Your task to perform on an android device: Search for vegetarian restaurants on Maps Image 0: 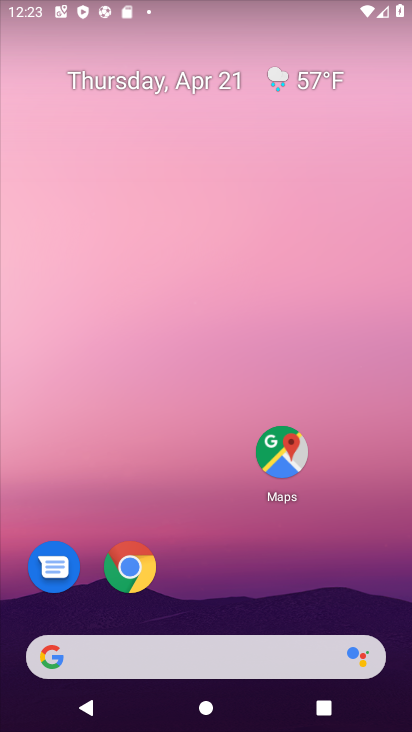
Step 0: click (299, 449)
Your task to perform on an android device: Search for vegetarian restaurants on Maps Image 1: 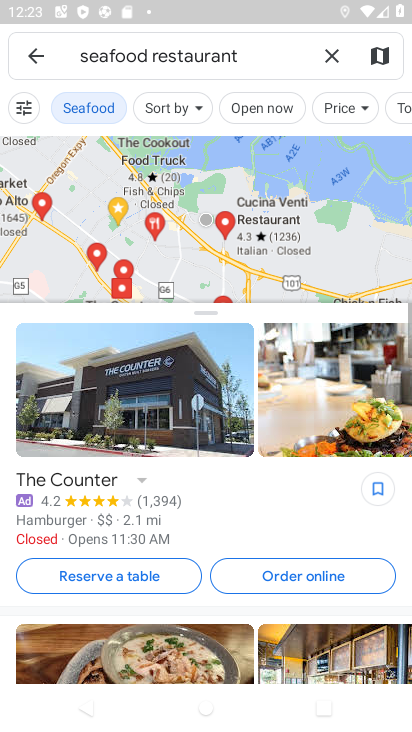
Step 1: click (327, 56)
Your task to perform on an android device: Search for vegetarian restaurants on Maps Image 2: 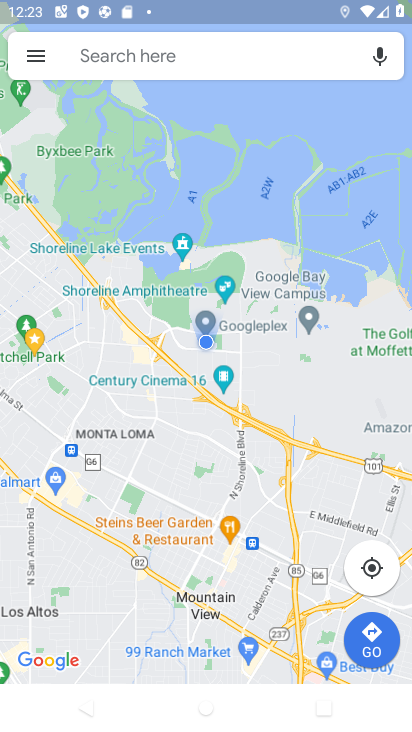
Step 2: click (193, 67)
Your task to perform on an android device: Search for vegetarian restaurants on Maps Image 3: 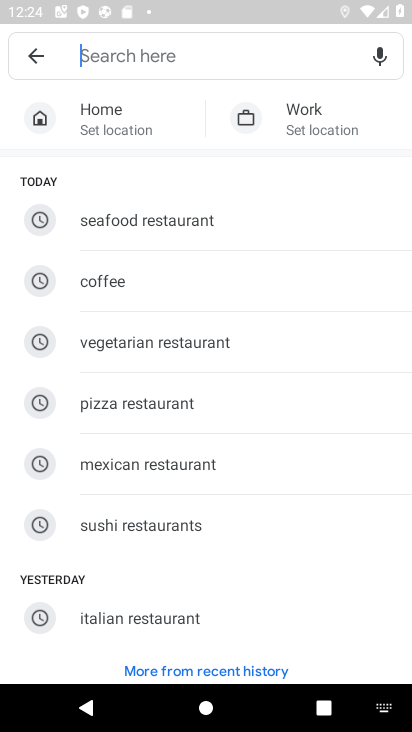
Step 3: type "vegetarian restaurants "
Your task to perform on an android device: Search for vegetarian restaurants on Maps Image 4: 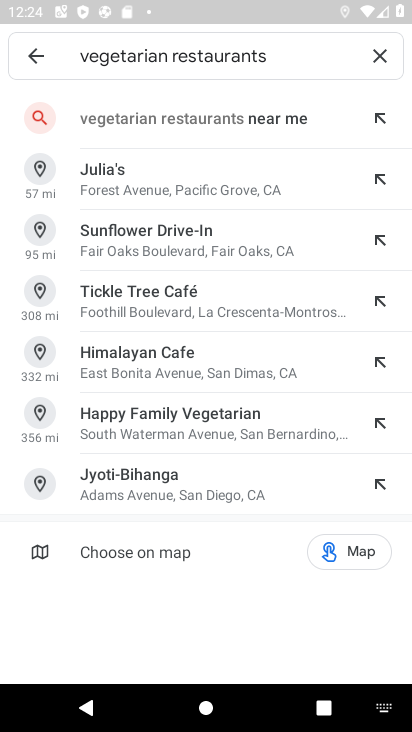
Step 4: click (260, 121)
Your task to perform on an android device: Search for vegetarian restaurants on Maps Image 5: 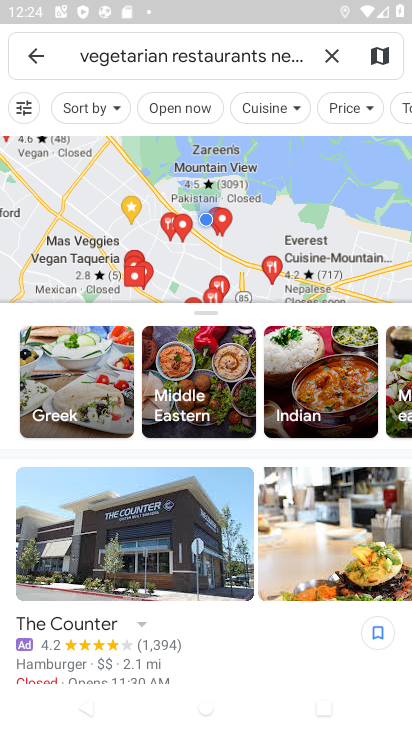
Step 5: task complete